Your task to perform on an android device: Go to Google Image 0: 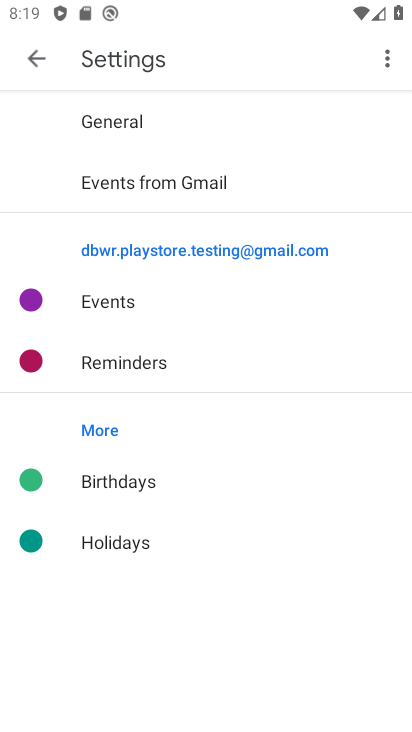
Step 0: press home button
Your task to perform on an android device: Go to Google Image 1: 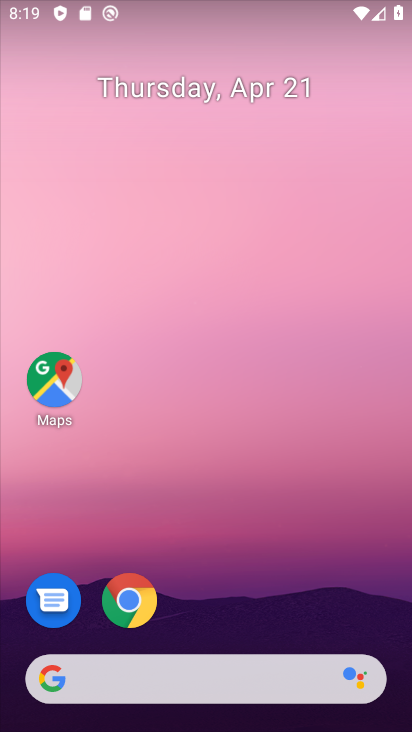
Step 1: click (79, 676)
Your task to perform on an android device: Go to Google Image 2: 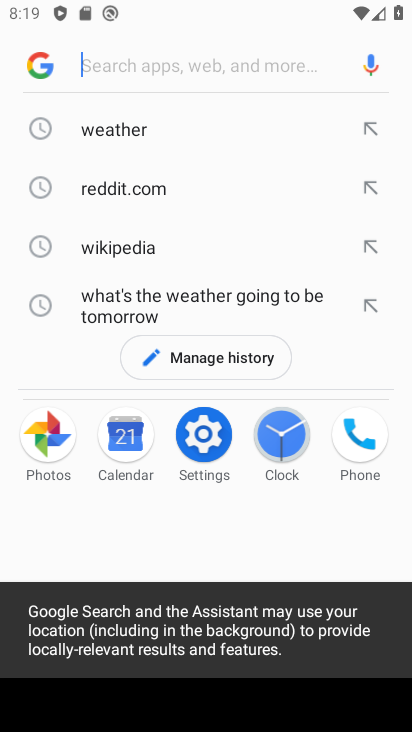
Step 2: task complete